Your task to perform on an android device: View the shopping cart on costco. Add "dell alienware" to the cart on costco, then select checkout. Image 0: 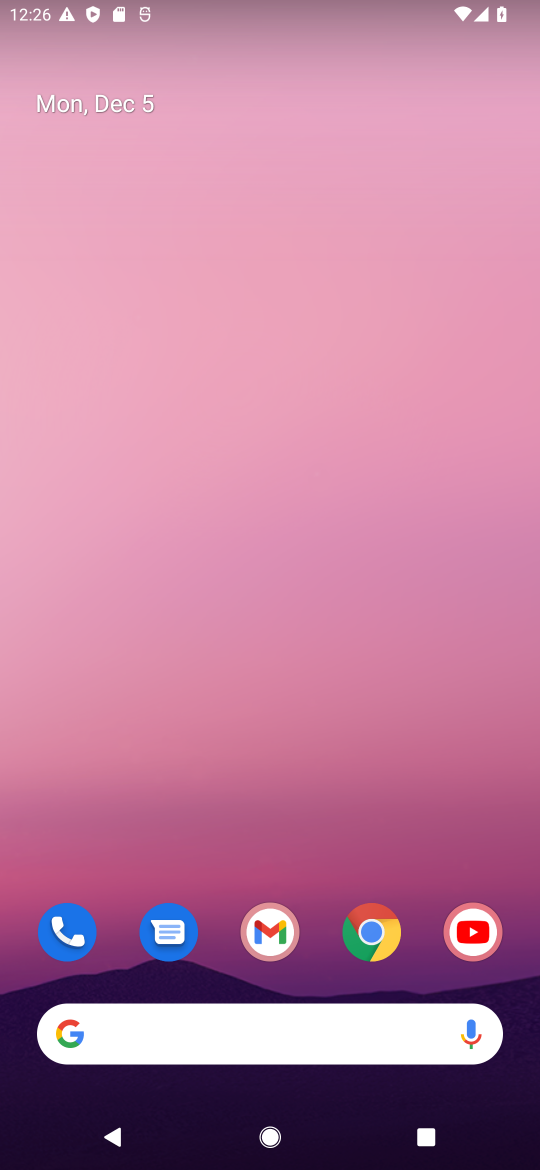
Step 0: click (385, 924)
Your task to perform on an android device: View the shopping cart on costco. Add "dell alienware" to the cart on costco, then select checkout. Image 1: 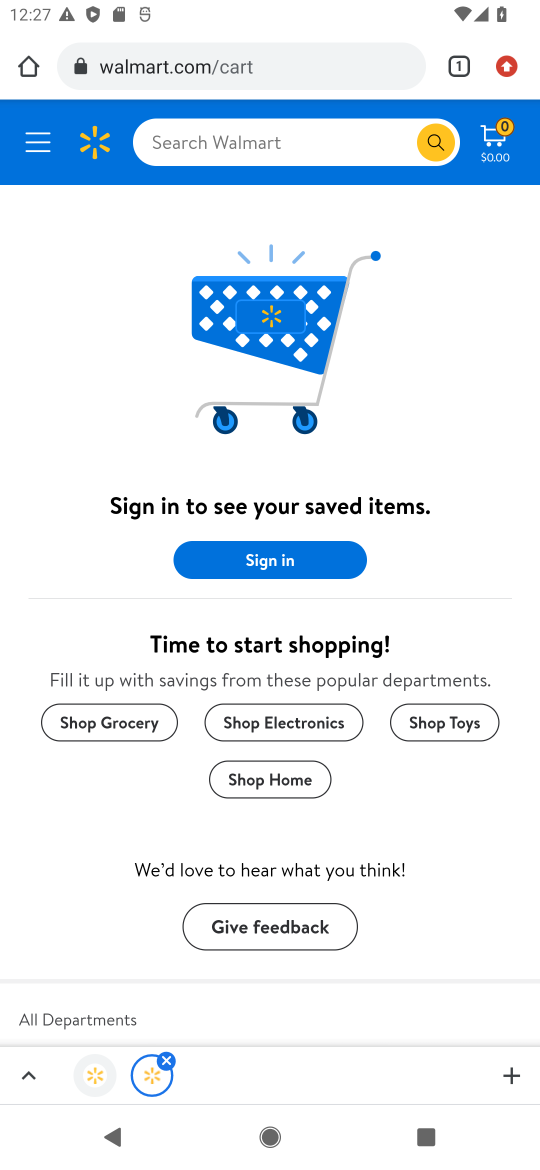
Step 1: click (226, 64)
Your task to perform on an android device: View the shopping cart on costco. Add "dell alienware" to the cart on costco, then select checkout. Image 2: 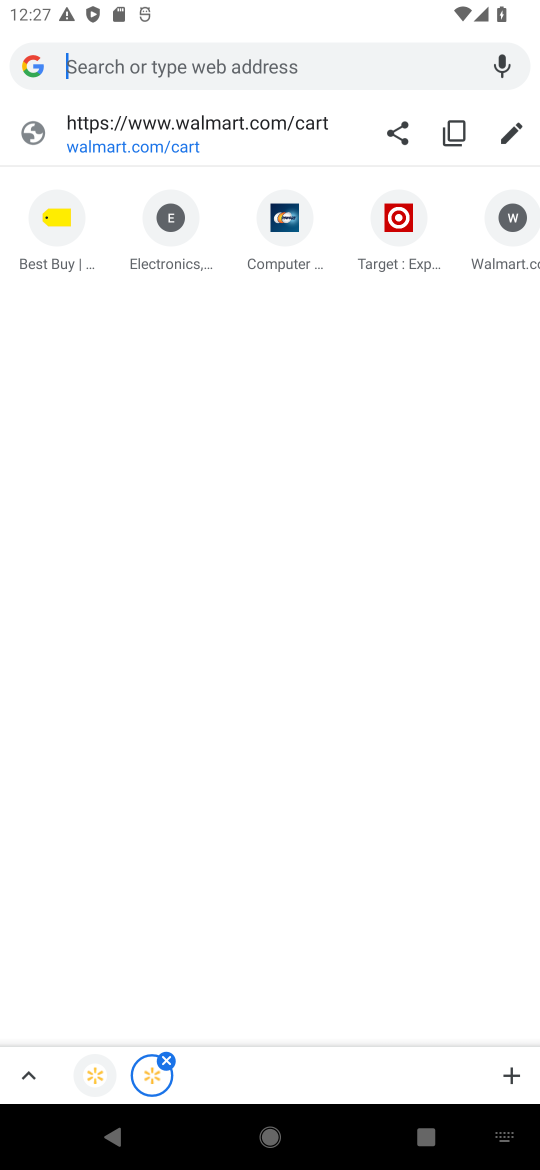
Step 2: type "vcostco"
Your task to perform on an android device: View the shopping cart on costco. Add "dell alienware" to the cart on costco, then select checkout. Image 3: 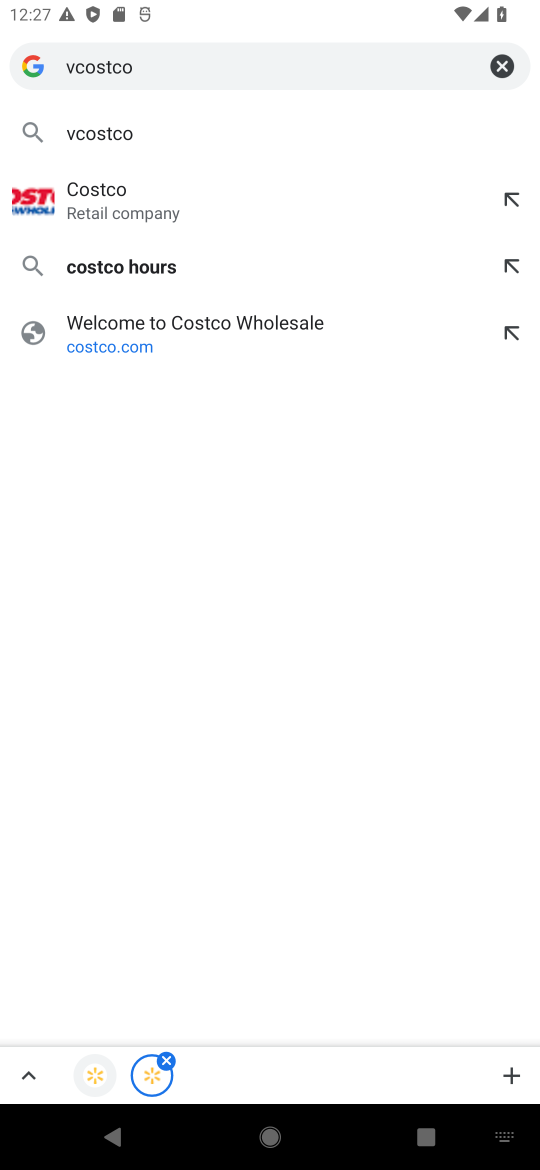
Step 3: click (136, 185)
Your task to perform on an android device: View the shopping cart on costco. Add "dell alienware" to the cart on costco, then select checkout. Image 4: 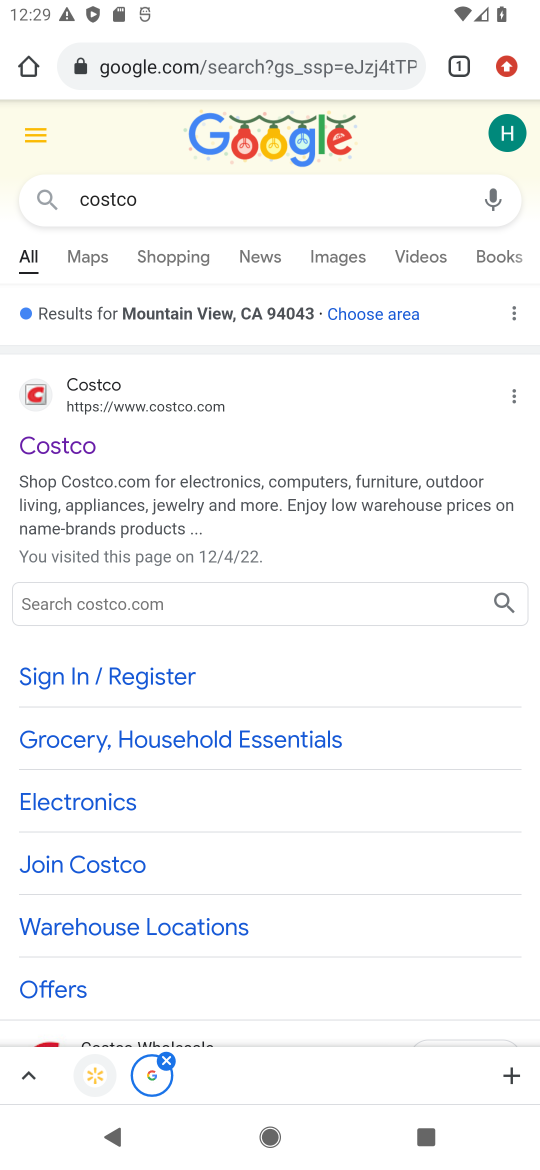
Step 4: click (81, 445)
Your task to perform on an android device: View the shopping cart on costco. Add "dell alienware" to the cart on costco, then select checkout. Image 5: 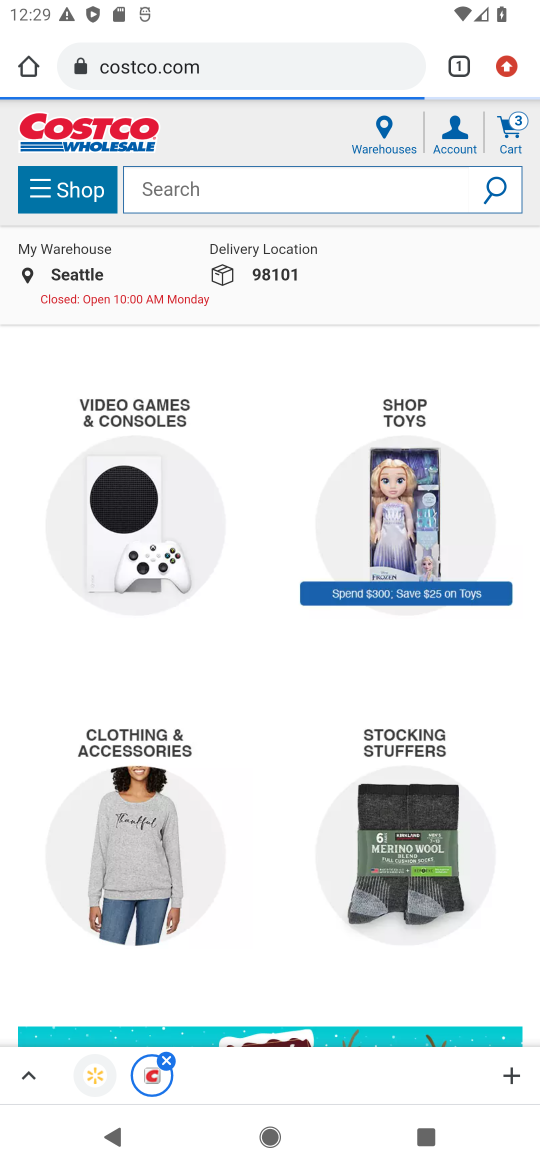
Step 5: click (327, 182)
Your task to perform on an android device: View the shopping cart on costco. Add "dell alienware" to the cart on costco, then select checkout. Image 6: 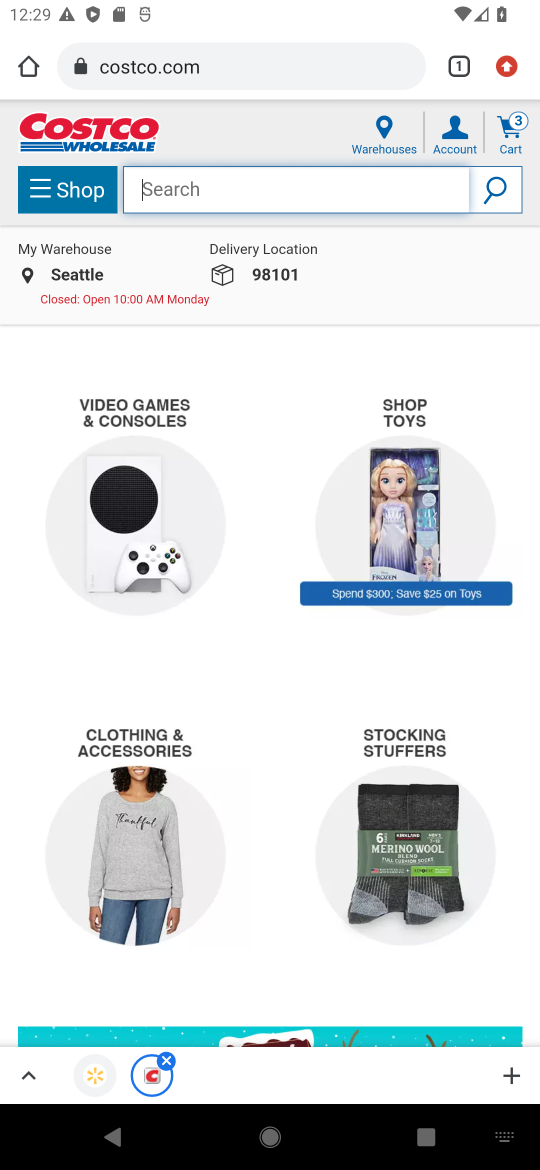
Step 6: type "dell alienware"
Your task to perform on an android device: View the shopping cart on costco. Add "dell alienware" to the cart on costco, then select checkout. Image 7: 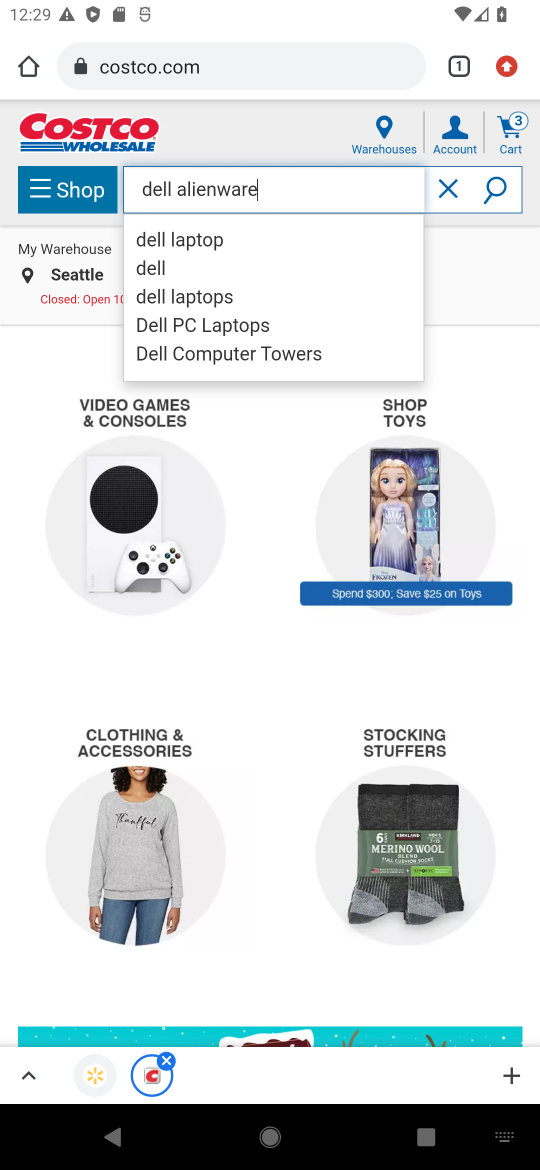
Step 7: click (192, 235)
Your task to perform on an android device: View the shopping cart on costco. Add "dell alienware" to the cart on costco, then select checkout. Image 8: 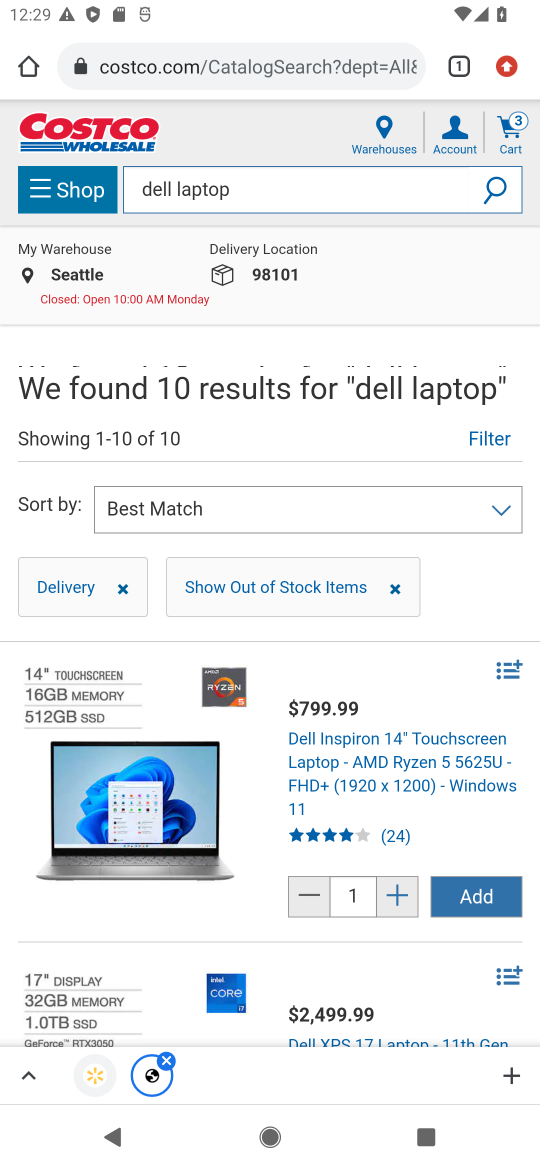
Step 8: click (485, 884)
Your task to perform on an android device: View the shopping cart on costco. Add "dell alienware" to the cart on costco, then select checkout. Image 9: 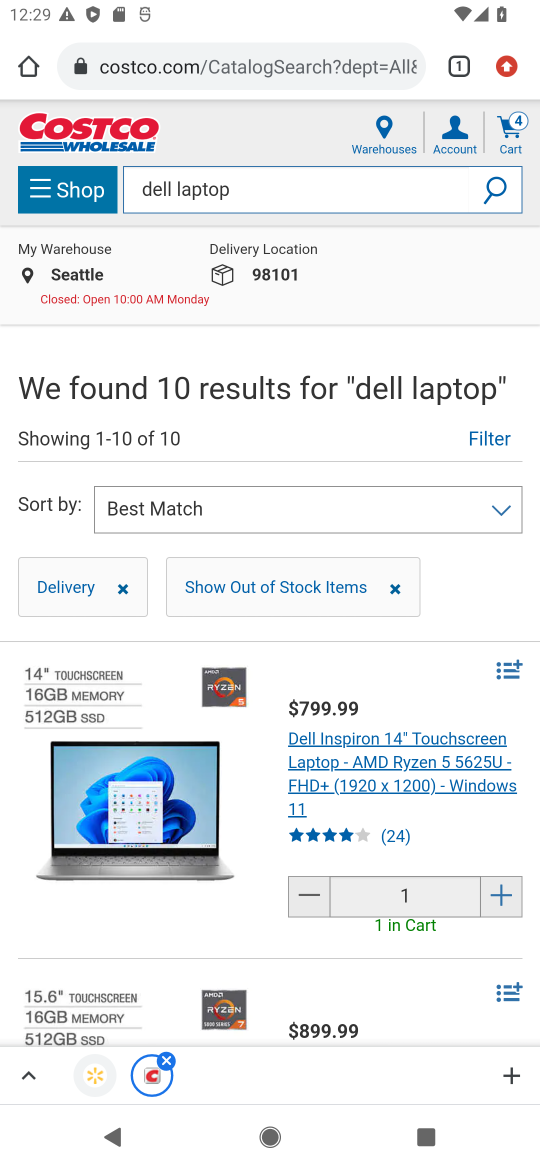
Step 9: task complete